Your task to perform on an android device: Show me the alarms in the clock app Image 0: 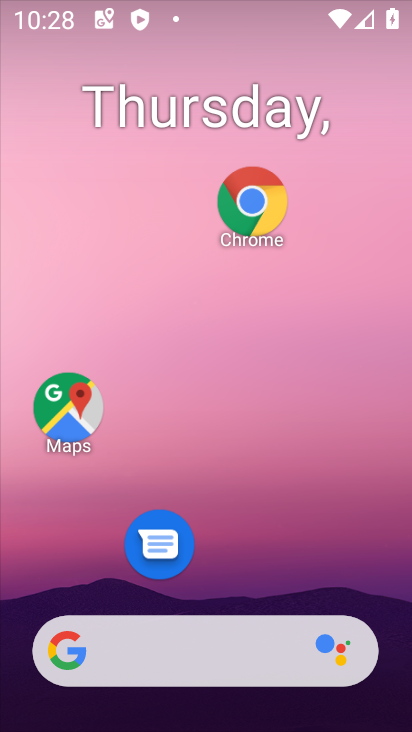
Step 0: press home button
Your task to perform on an android device: Show me the alarms in the clock app Image 1: 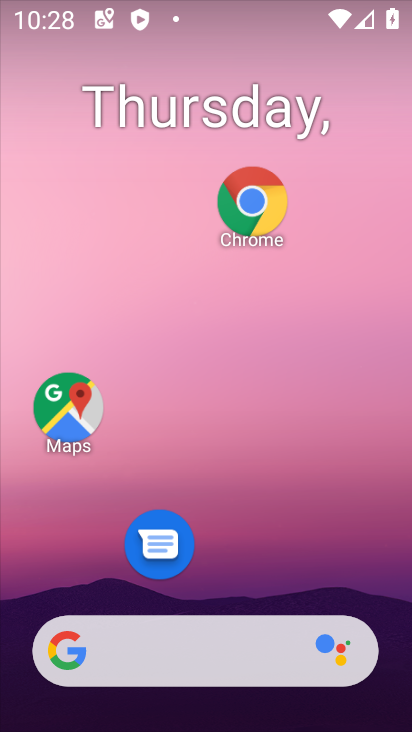
Step 1: press home button
Your task to perform on an android device: Show me the alarms in the clock app Image 2: 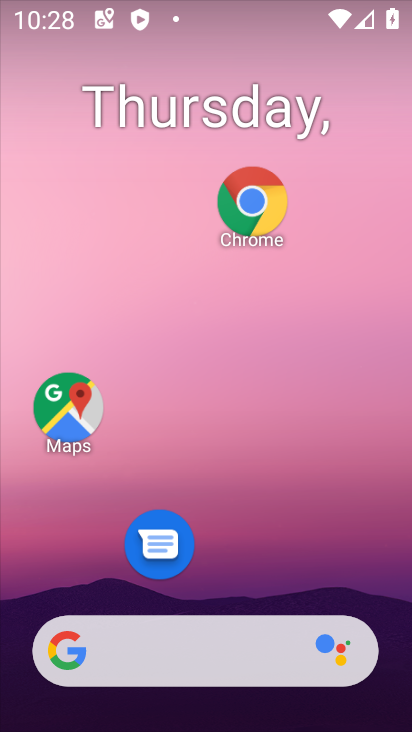
Step 2: drag from (222, 595) to (236, 82)
Your task to perform on an android device: Show me the alarms in the clock app Image 3: 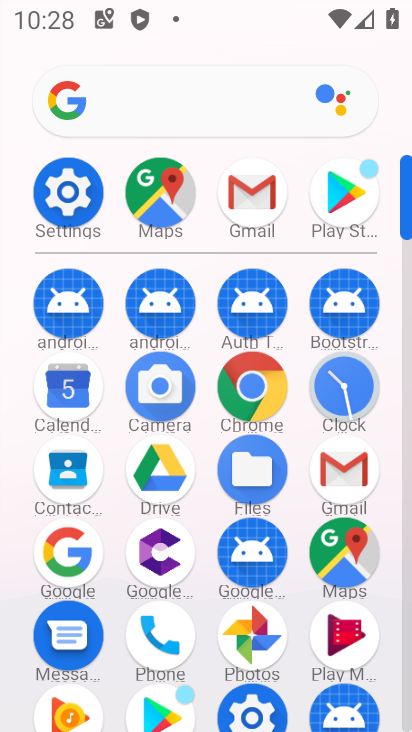
Step 3: click (341, 379)
Your task to perform on an android device: Show me the alarms in the clock app Image 4: 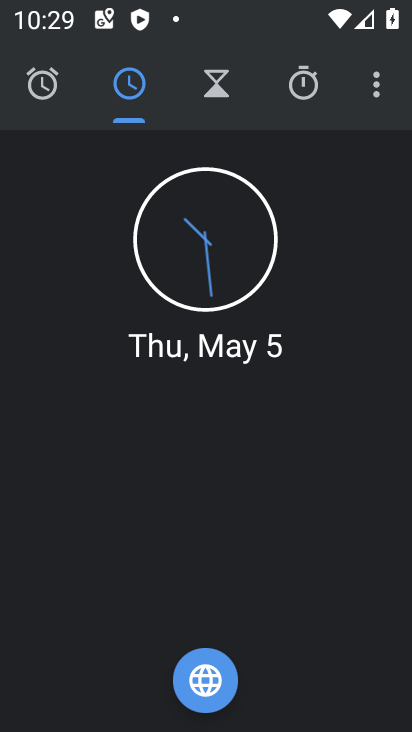
Step 4: click (55, 90)
Your task to perform on an android device: Show me the alarms in the clock app Image 5: 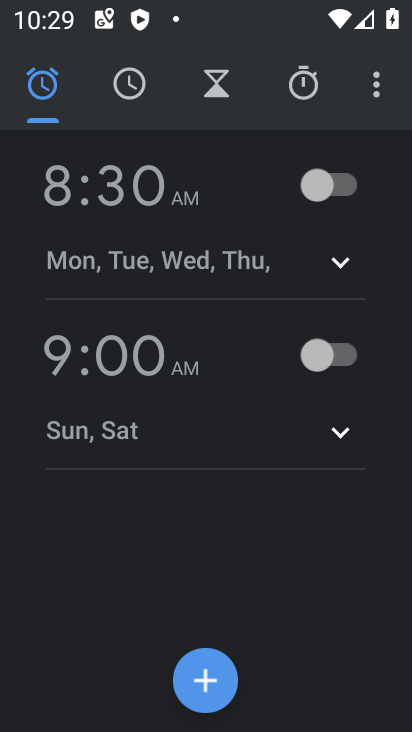
Step 5: task complete